Your task to perform on an android device: Go to Android settings Image 0: 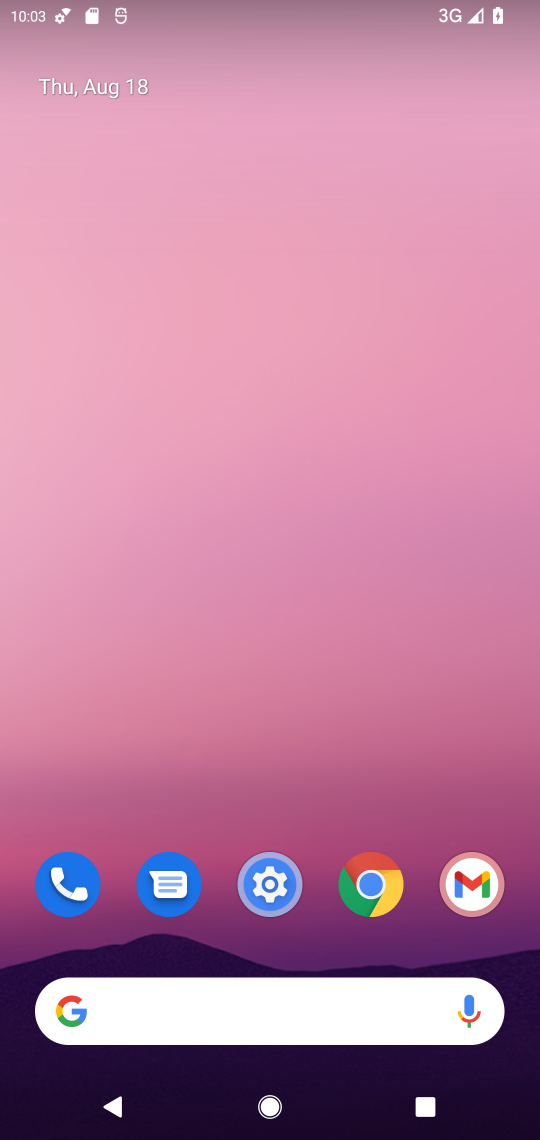
Step 0: click (281, 869)
Your task to perform on an android device: Go to Android settings Image 1: 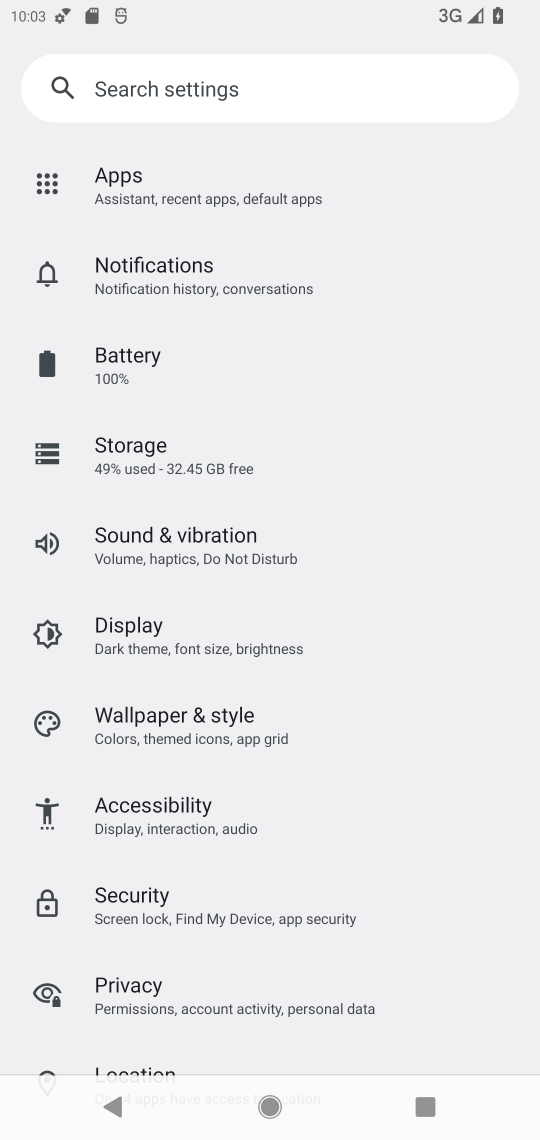
Step 1: task complete